Your task to perform on an android device: What's the weather? Image 0: 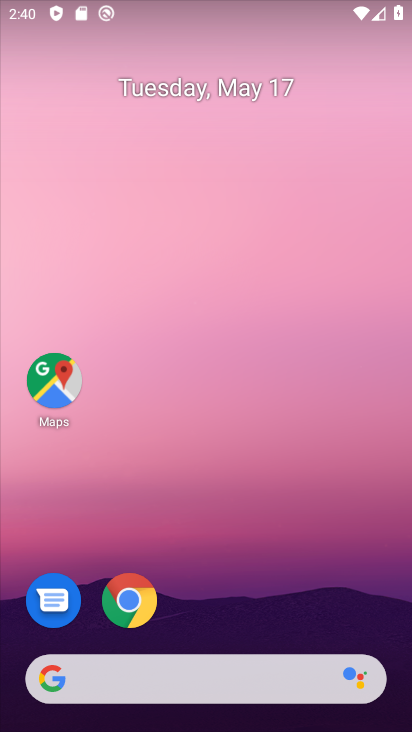
Step 0: drag from (212, 571) to (168, 143)
Your task to perform on an android device: What's the weather? Image 1: 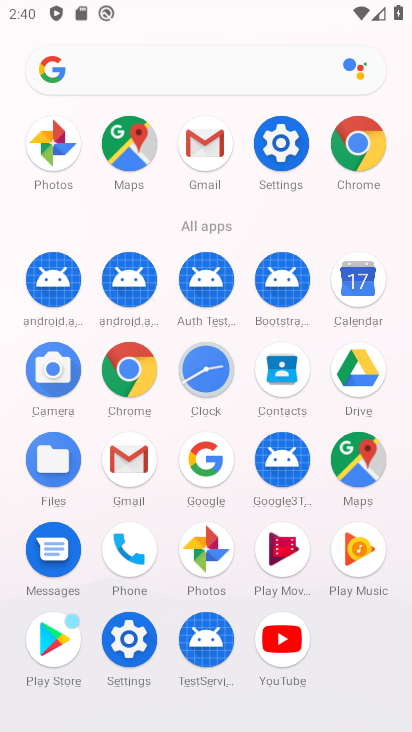
Step 1: click (204, 467)
Your task to perform on an android device: What's the weather? Image 2: 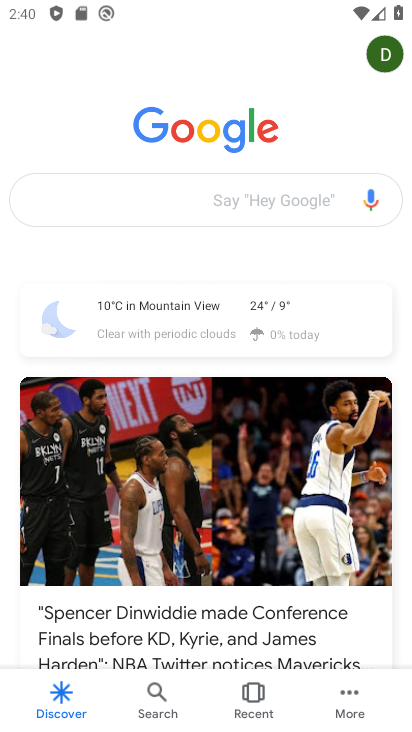
Step 2: click (124, 205)
Your task to perform on an android device: What's the weather? Image 3: 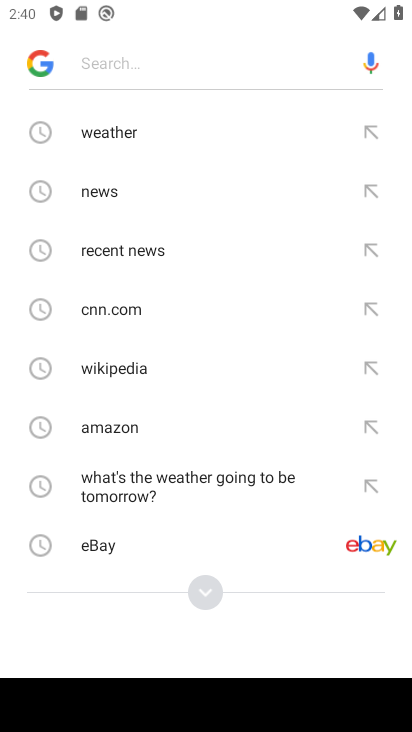
Step 3: type "whats the weather"
Your task to perform on an android device: What's the weather? Image 4: 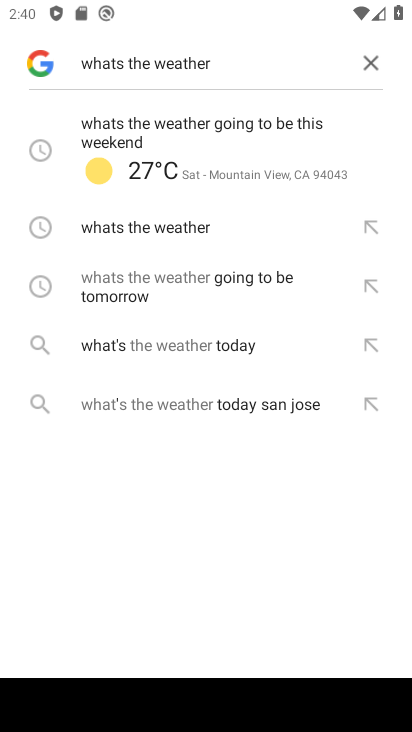
Step 4: click (208, 155)
Your task to perform on an android device: What's the weather? Image 5: 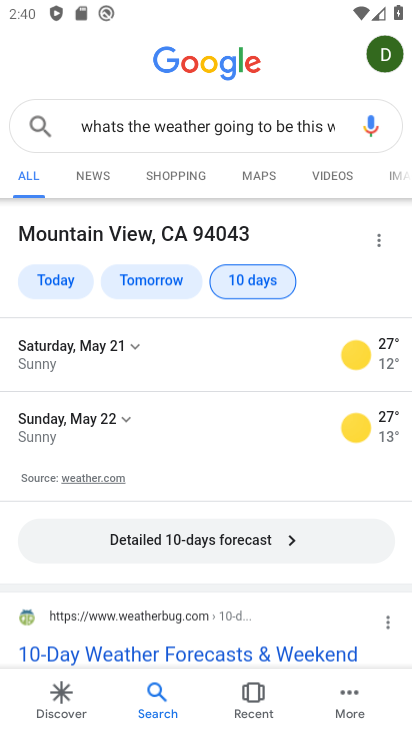
Step 5: task complete